Your task to perform on an android device: Search for pizza restaurants on Maps Image 0: 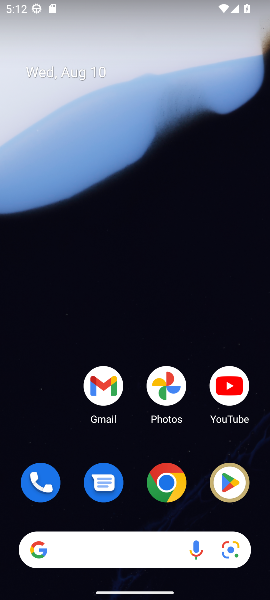
Step 0: drag from (59, 414) to (117, 40)
Your task to perform on an android device: Search for pizza restaurants on Maps Image 1: 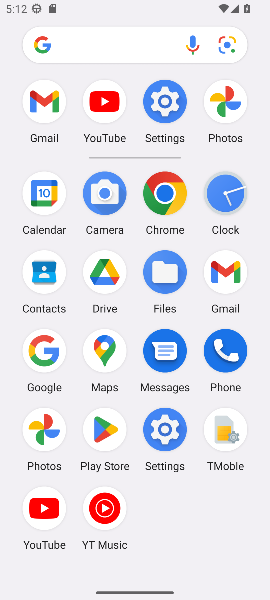
Step 1: click (109, 344)
Your task to perform on an android device: Search for pizza restaurants on Maps Image 2: 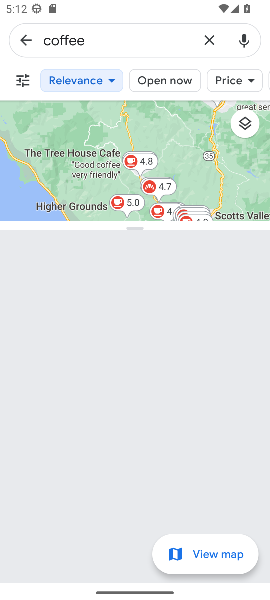
Step 2: click (208, 35)
Your task to perform on an android device: Search for pizza restaurants on Maps Image 3: 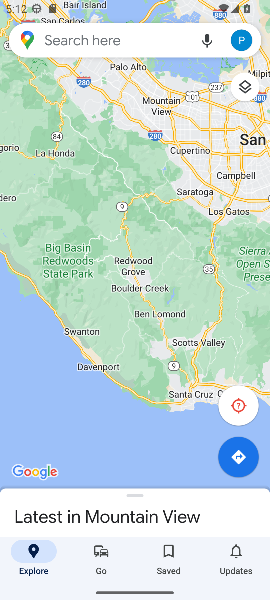
Step 3: click (133, 37)
Your task to perform on an android device: Search for pizza restaurants on Maps Image 4: 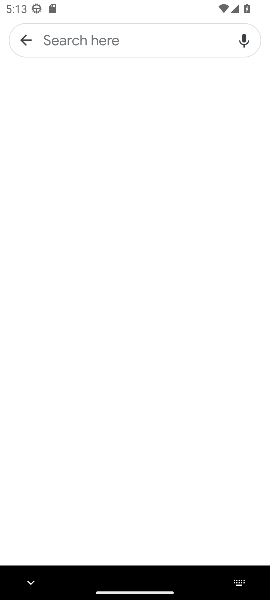
Step 4: type "pizza"
Your task to perform on an android device: Search for pizza restaurants on Maps Image 5: 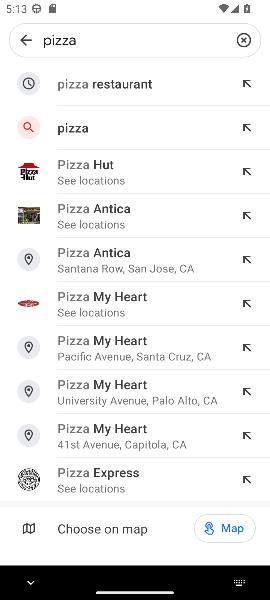
Step 5: click (99, 77)
Your task to perform on an android device: Search for pizza restaurants on Maps Image 6: 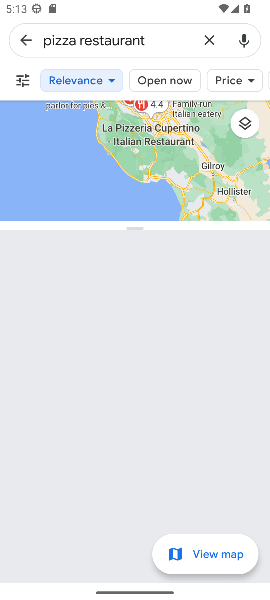
Step 6: drag from (156, 312) to (137, 461)
Your task to perform on an android device: Search for pizza restaurants on Maps Image 7: 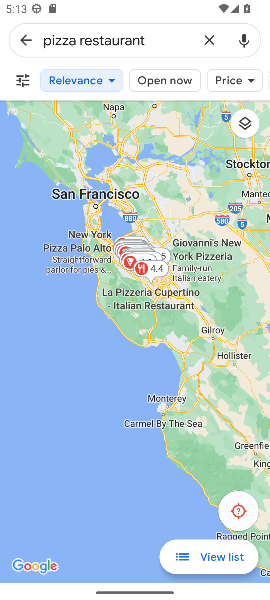
Step 7: click (165, 34)
Your task to perform on an android device: Search for pizza restaurants on Maps Image 8: 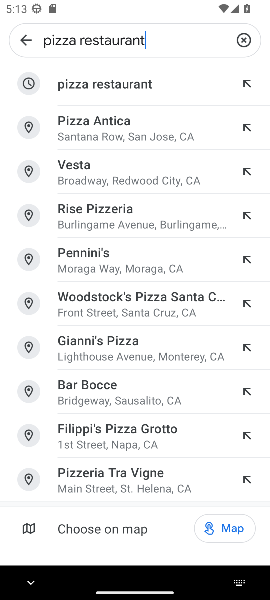
Step 8: click (148, 86)
Your task to perform on an android device: Search for pizza restaurants on Maps Image 9: 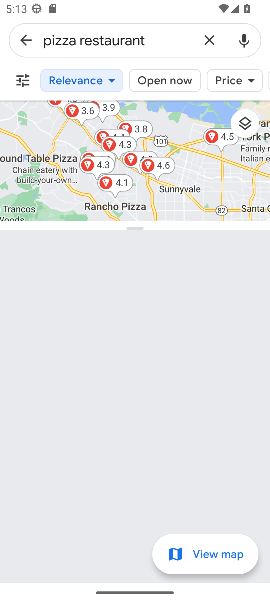
Step 9: click (138, 225)
Your task to perform on an android device: Search for pizza restaurants on Maps Image 10: 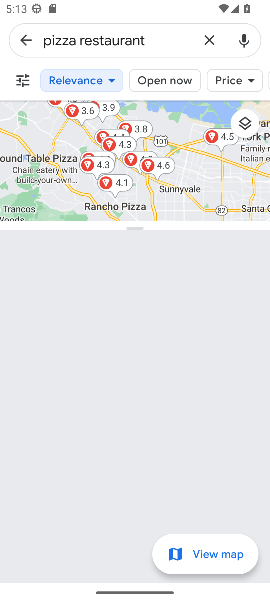
Step 10: click (214, 554)
Your task to perform on an android device: Search for pizza restaurants on Maps Image 11: 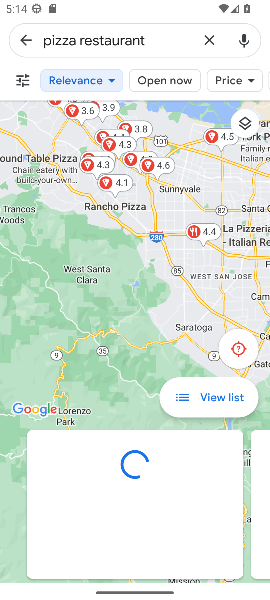
Step 11: task complete